Your task to perform on an android device: choose inbox layout in the gmail app Image 0: 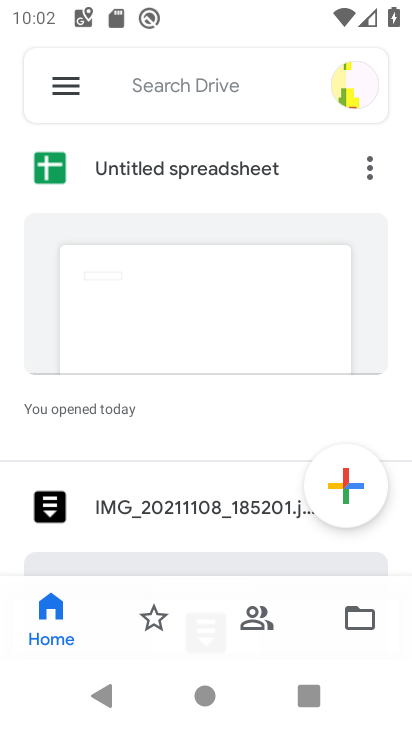
Step 0: press back button
Your task to perform on an android device: choose inbox layout in the gmail app Image 1: 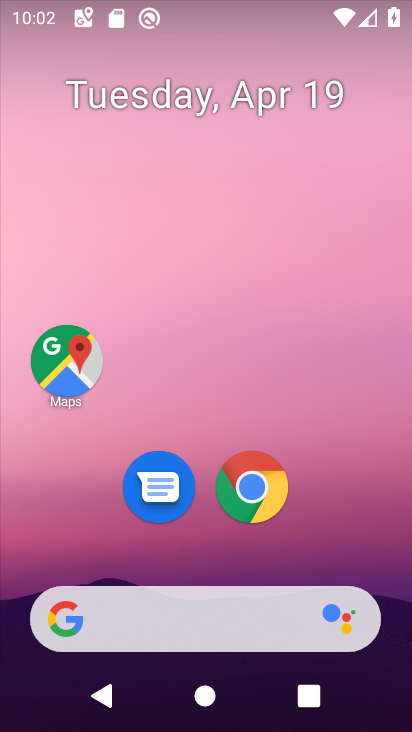
Step 1: drag from (363, 538) to (297, 15)
Your task to perform on an android device: choose inbox layout in the gmail app Image 2: 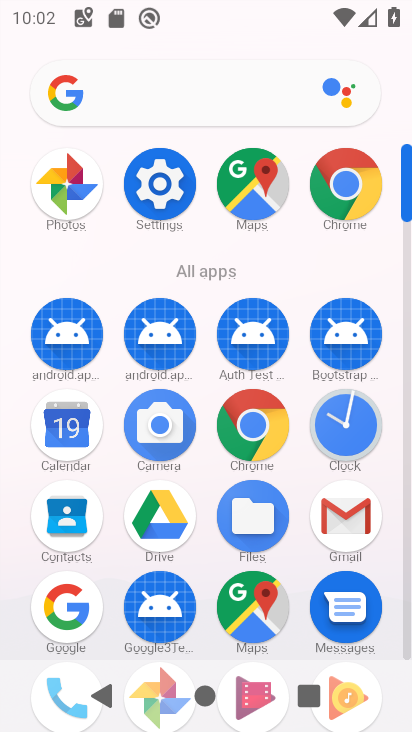
Step 2: drag from (5, 568) to (15, 256)
Your task to perform on an android device: choose inbox layout in the gmail app Image 3: 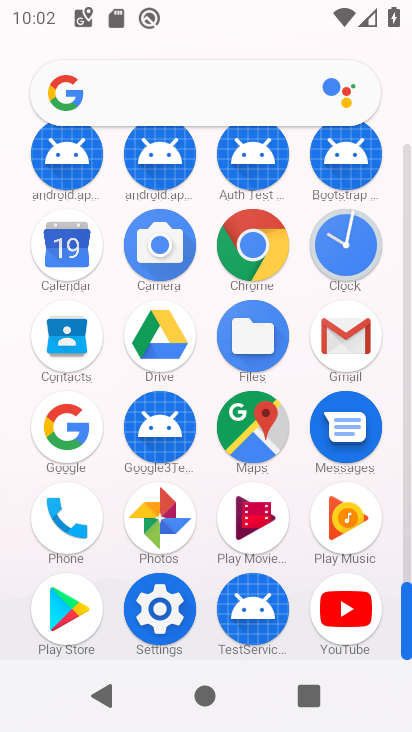
Step 3: drag from (7, 179) to (3, 356)
Your task to perform on an android device: choose inbox layout in the gmail app Image 4: 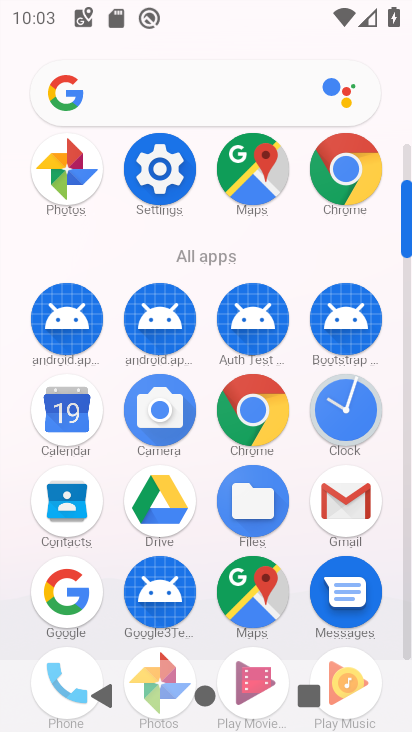
Step 4: click (351, 498)
Your task to perform on an android device: choose inbox layout in the gmail app Image 5: 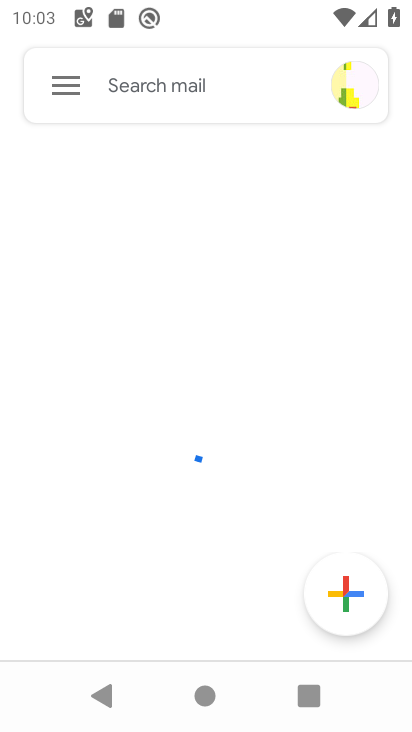
Step 5: click (67, 78)
Your task to perform on an android device: choose inbox layout in the gmail app Image 6: 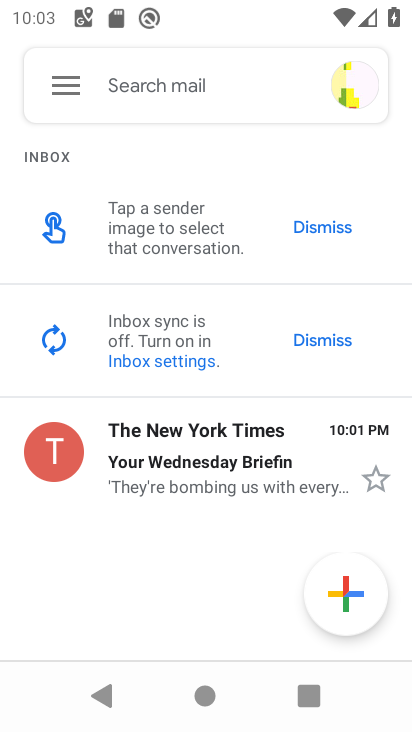
Step 6: click (64, 97)
Your task to perform on an android device: choose inbox layout in the gmail app Image 7: 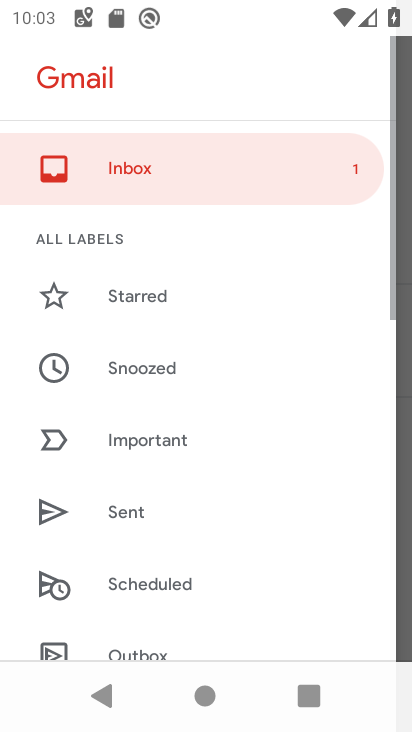
Step 7: drag from (201, 480) to (205, 127)
Your task to perform on an android device: choose inbox layout in the gmail app Image 8: 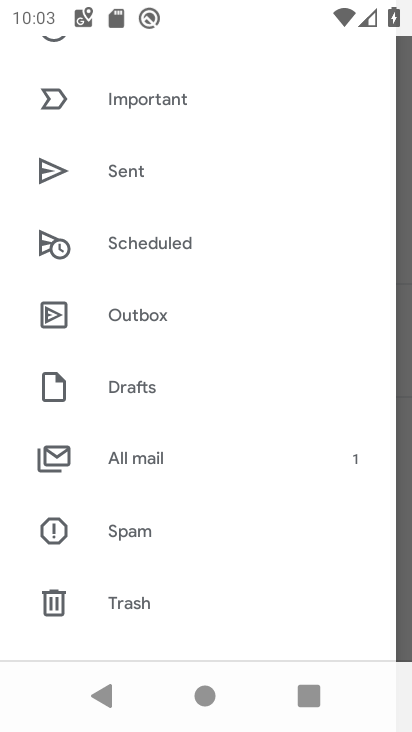
Step 8: drag from (206, 545) to (206, 150)
Your task to perform on an android device: choose inbox layout in the gmail app Image 9: 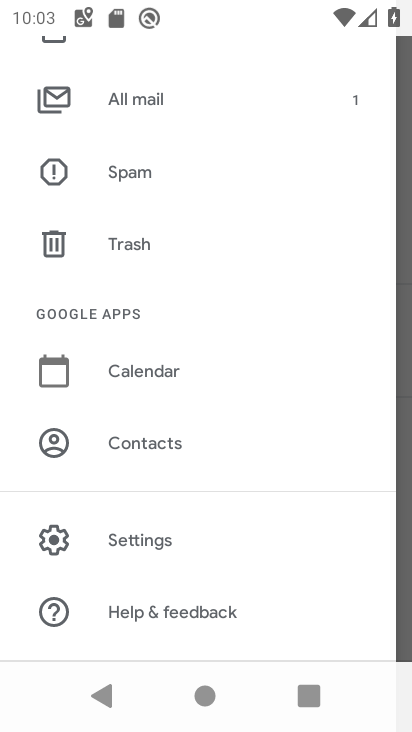
Step 9: click (151, 534)
Your task to perform on an android device: choose inbox layout in the gmail app Image 10: 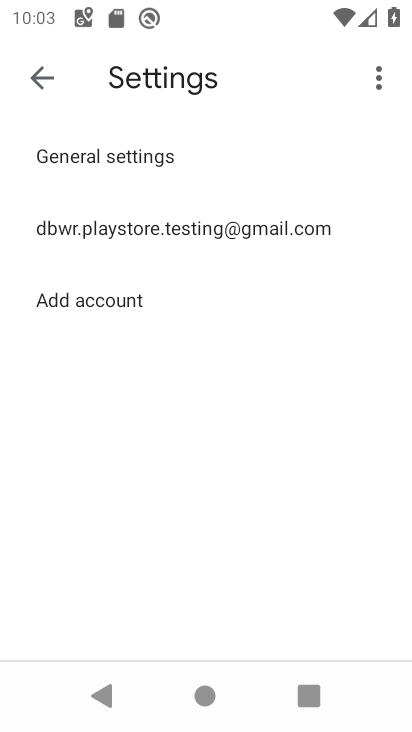
Step 10: click (266, 228)
Your task to perform on an android device: choose inbox layout in the gmail app Image 11: 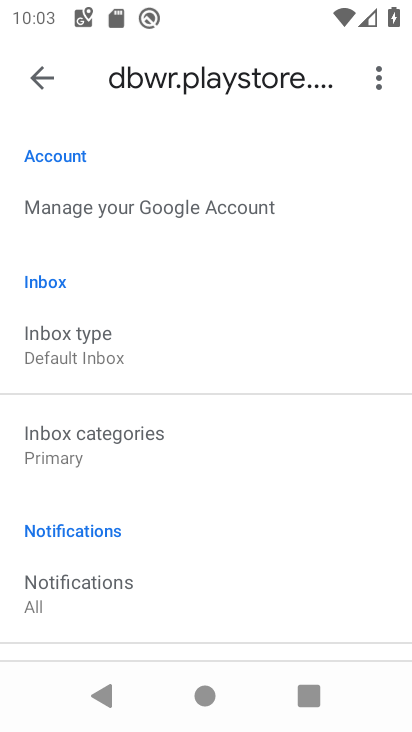
Step 11: drag from (255, 424) to (274, 157)
Your task to perform on an android device: choose inbox layout in the gmail app Image 12: 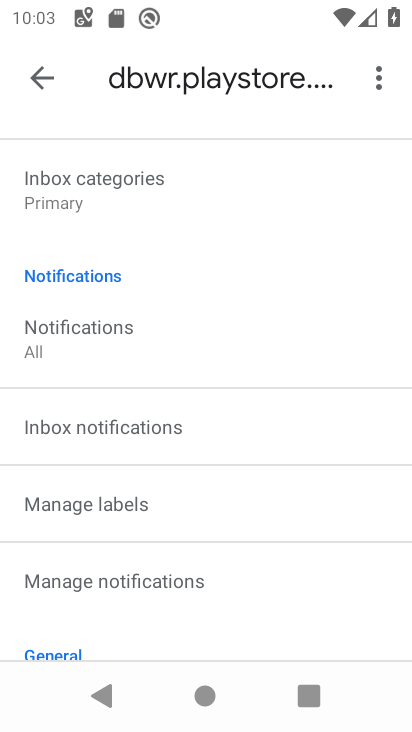
Step 12: drag from (255, 248) to (257, 477)
Your task to perform on an android device: choose inbox layout in the gmail app Image 13: 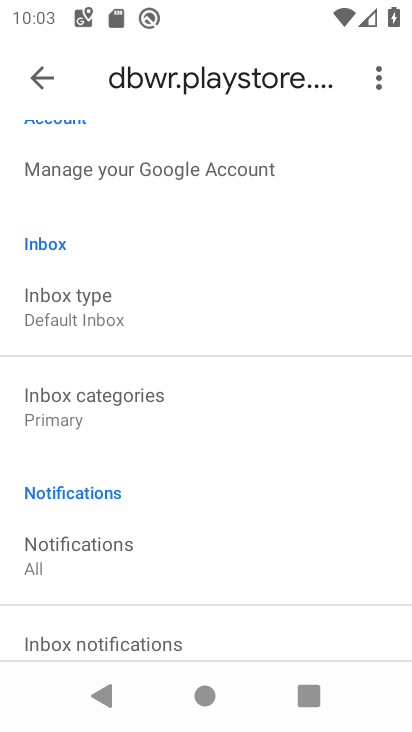
Step 13: click (109, 320)
Your task to perform on an android device: choose inbox layout in the gmail app Image 14: 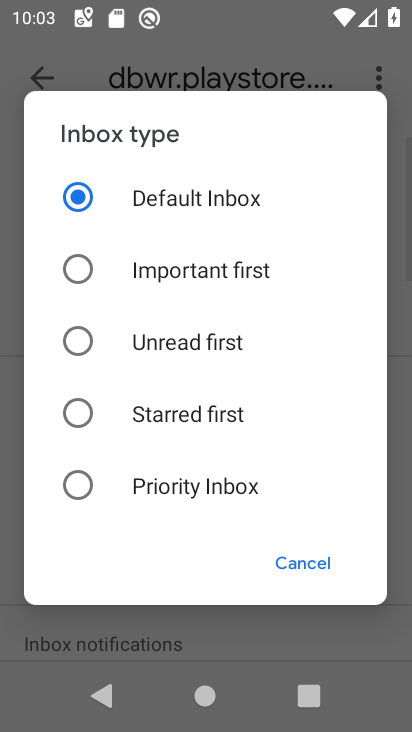
Step 14: click (123, 498)
Your task to perform on an android device: choose inbox layout in the gmail app Image 15: 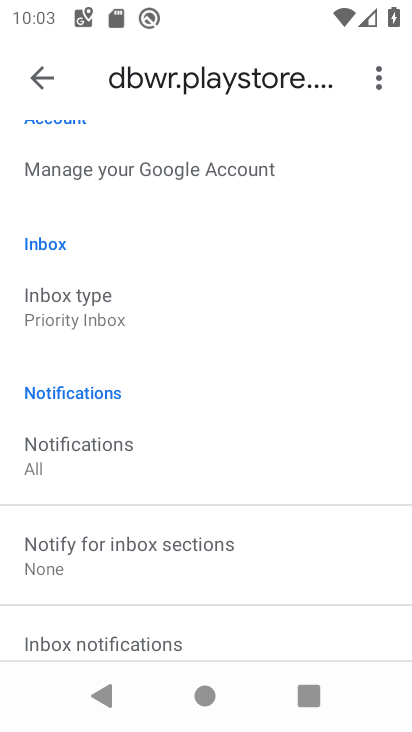
Step 15: task complete